Your task to perform on an android device: Do I have any events this weekend? Image 0: 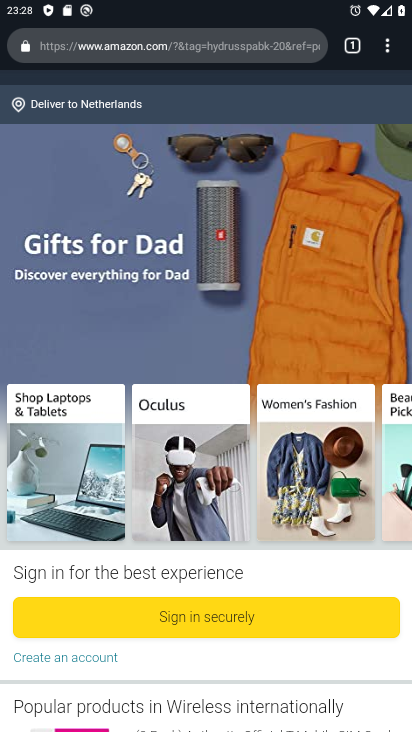
Step 0: press home button
Your task to perform on an android device: Do I have any events this weekend? Image 1: 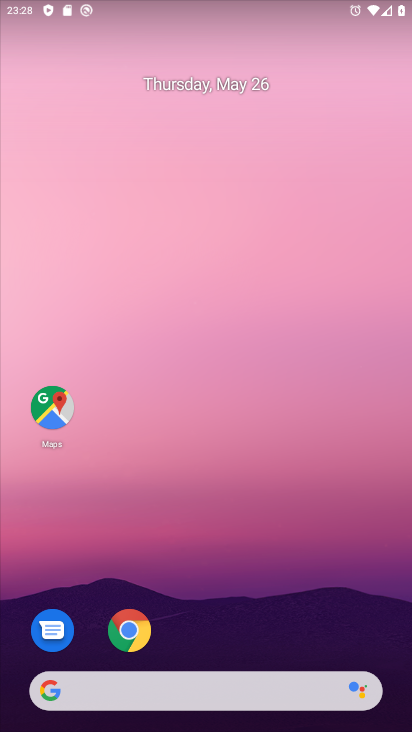
Step 1: drag from (241, 604) to (153, 91)
Your task to perform on an android device: Do I have any events this weekend? Image 2: 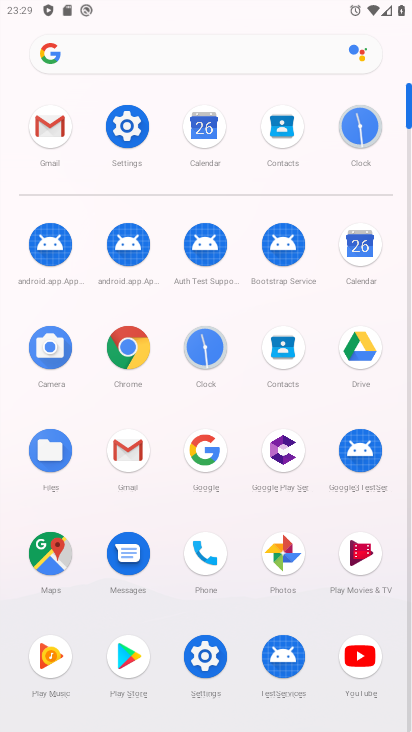
Step 2: click (204, 128)
Your task to perform on an android device: Do I have any events this weekend? Image 3: 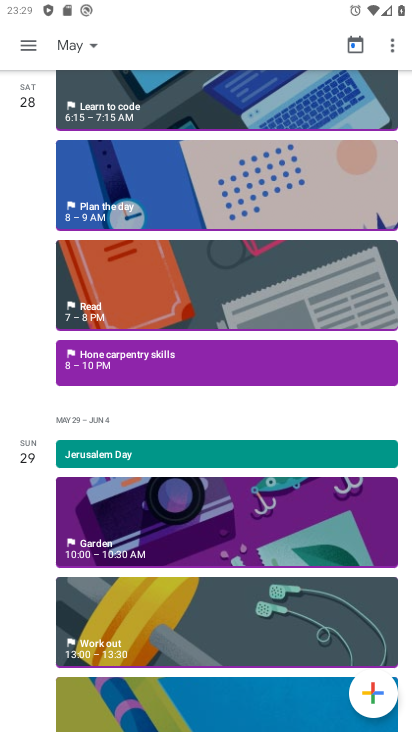
Step 3: click (91, 49)
Your task to perform on an android device: Do I have any events this weekend? Image 4: 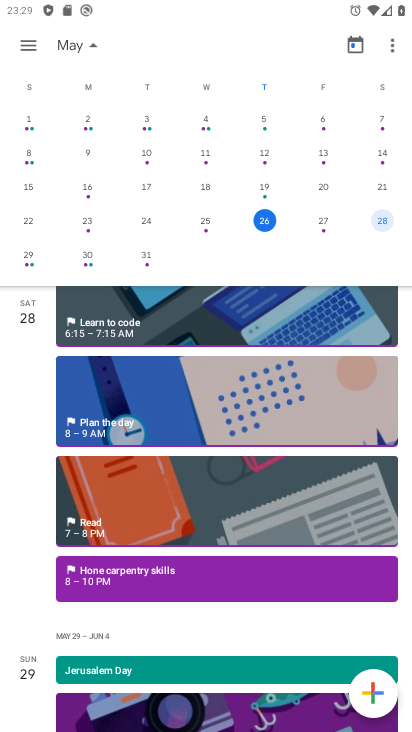
Step 4: click (381, 225)
Your task to perform on an android device: Do I have any events this weekend? Image 5: 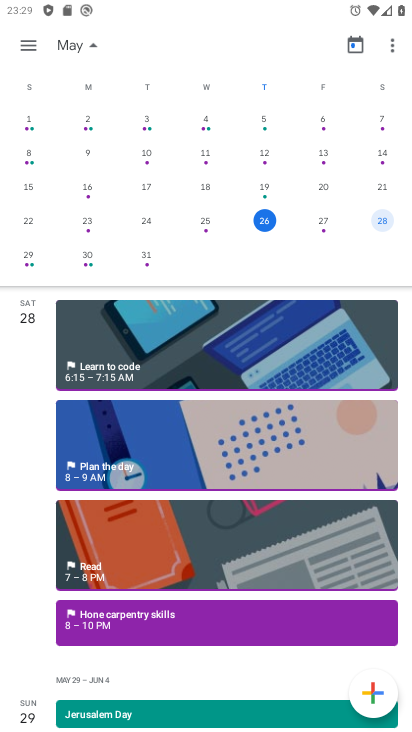
Step 5: click (28, 43)
Your task to perform on an android device: Do I have any events this weekend? Image 6: 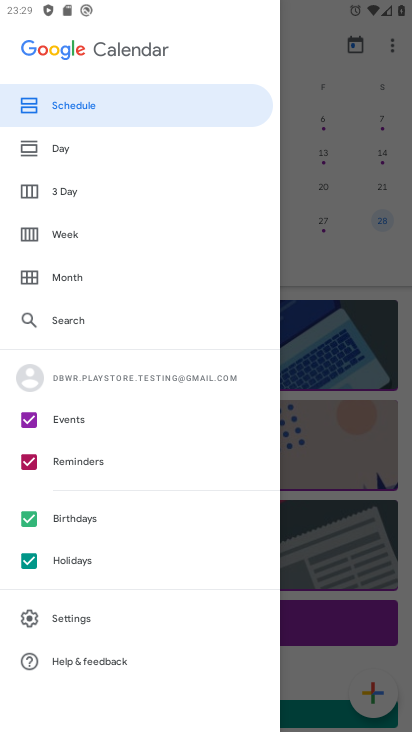
Step 6: click (94, 110)
Your task to perform on an android device: Do I have any events this weekend? Image 7: 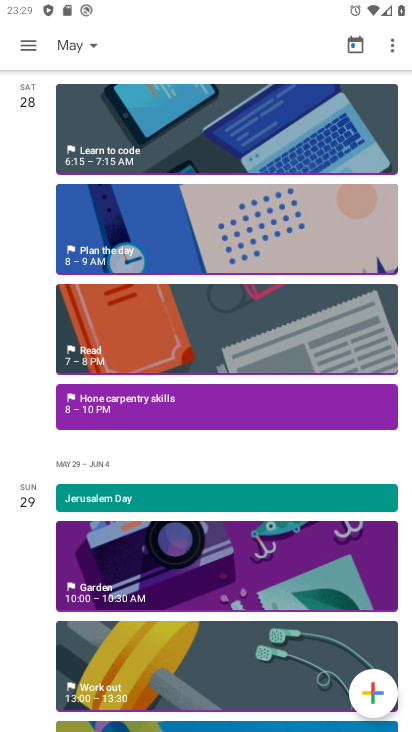
Step 7: task complete